Your task to perform on an android device: turn vacation reply on in the gmail app Image 0: 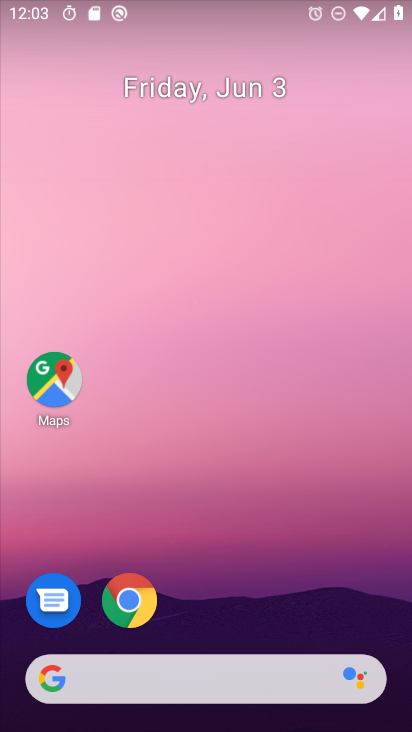
Step 0: drag from (248, 597) to (243, 70)
Your task to perform on an android device: turn vacation reply on in the gmail app Image 1: 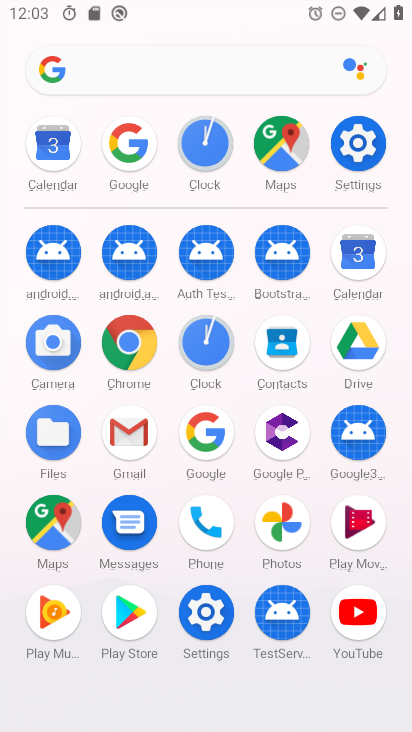
Step 1: click (134, 416)
Your task to perform on an android device: turn vacation reply on in the gmail app Image 2: 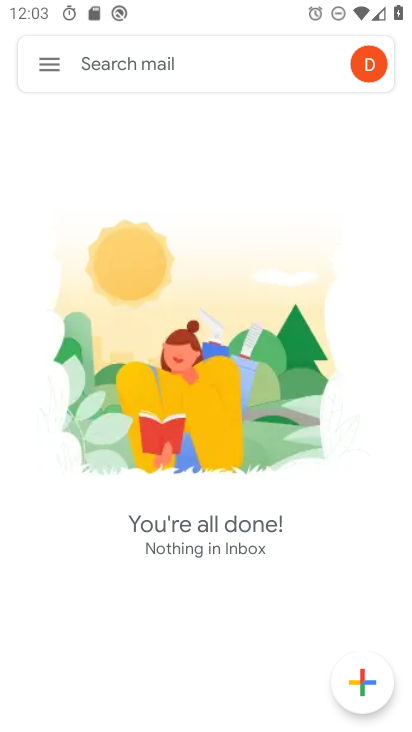
Step 2: click (58, 61)
Your task to perform on an android device: turn vacation reply on in the gmail app Image 3: 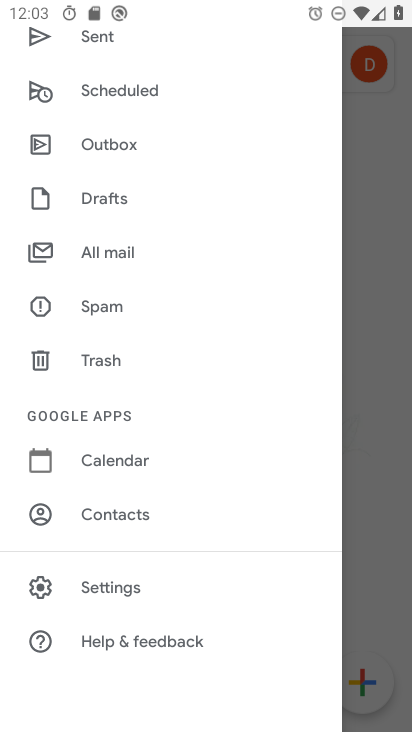
Step 3: click (92, 599)
Your task to perform on an android device: turn vacation reply on in the gmail app Image 4: 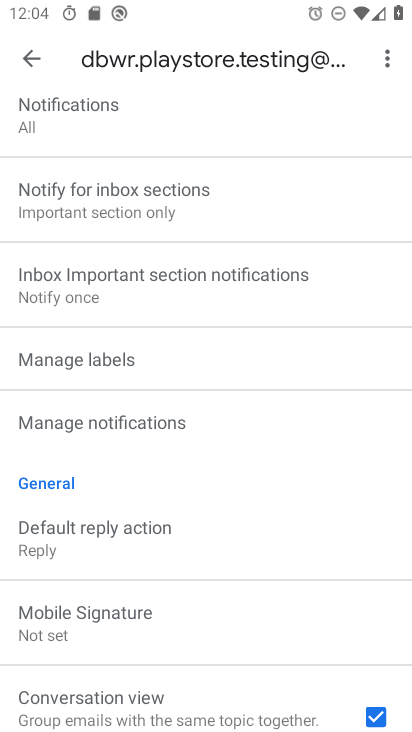
Step 4: drag from (124, 594) to (146, 225)
Your task to perform on an android device: turn vacation reply on in the gmail app Image 5: 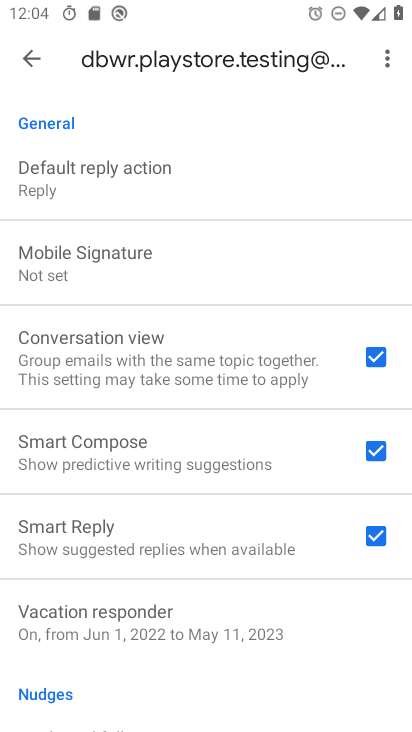
Step 5: click (96, 593)
Your task to perform on an android device: turn vacation reply on in the gmail app Image 6: 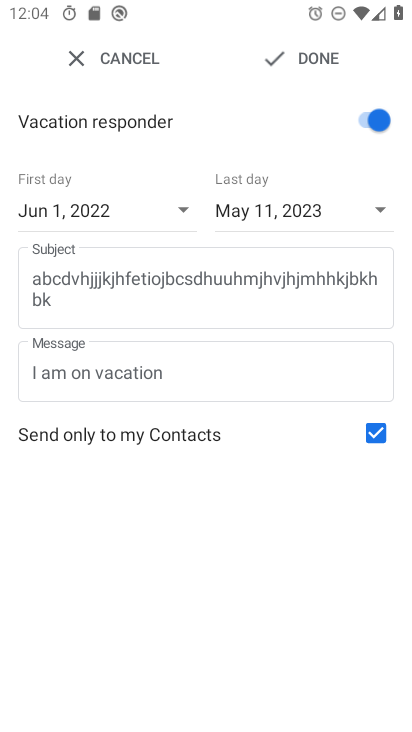
Step 6: task complete